Your task to perform on an android device: turn off improve location accuracy Image 0: 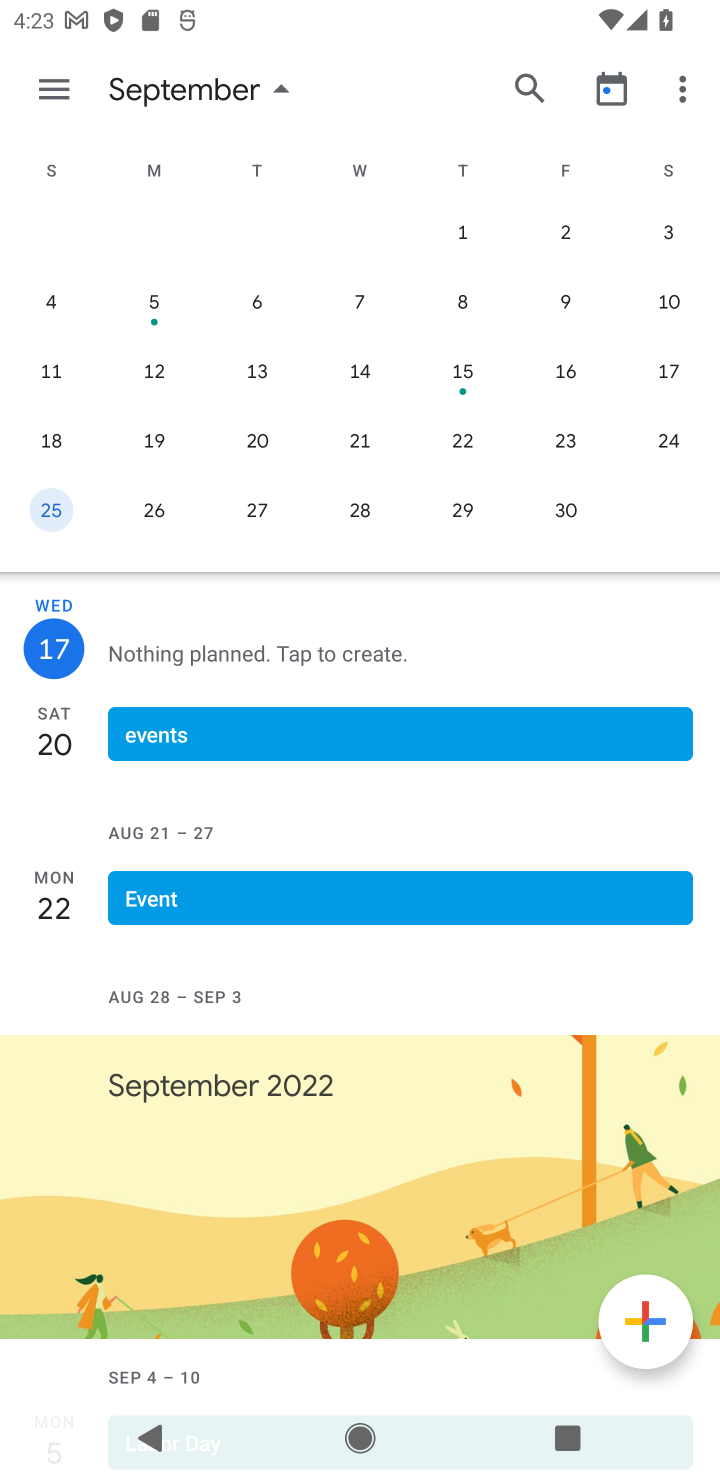
Step 0: press home button
Your task to perform on an android device: turn off improve location accuracy Image 1: 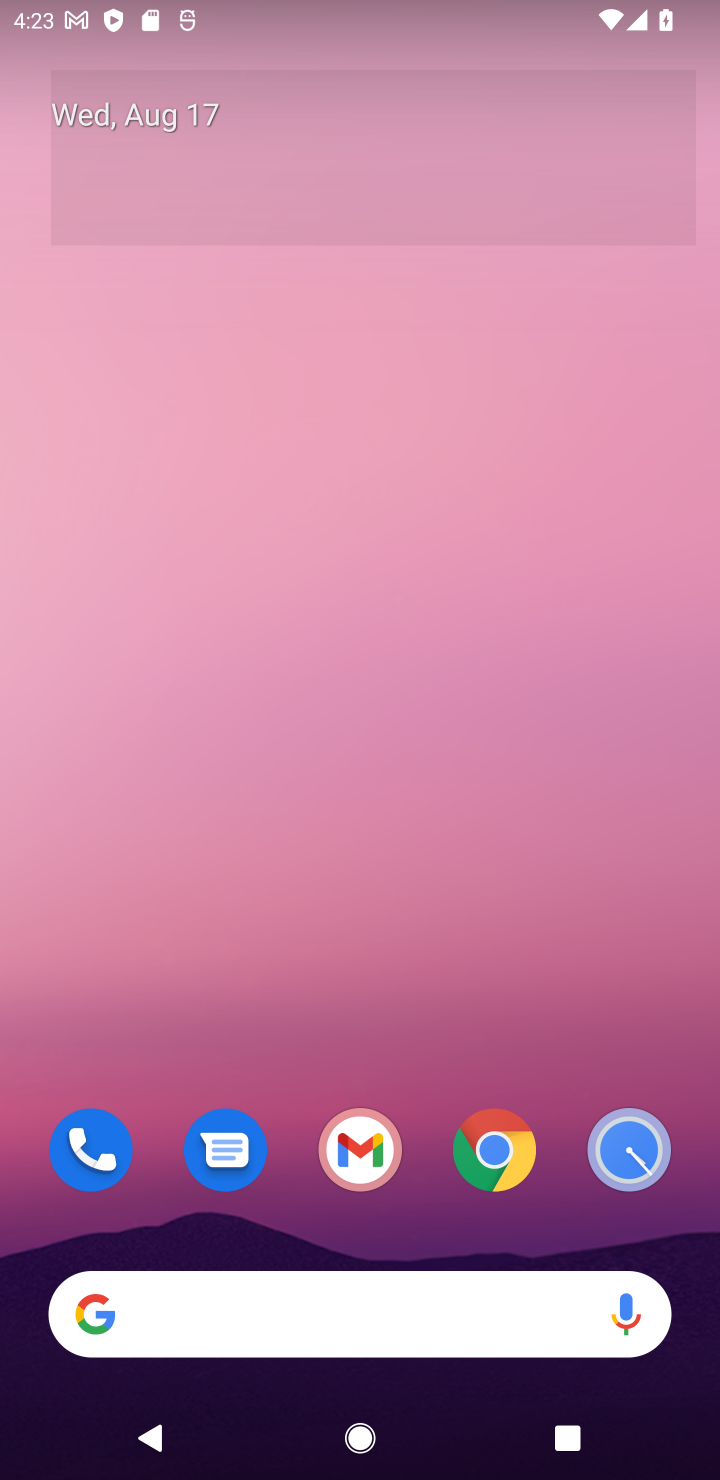
Step 1: drag from (554, 1192) to (401, 1)
Your task to perform on an android device: turn off improve location accuracy Image 2: 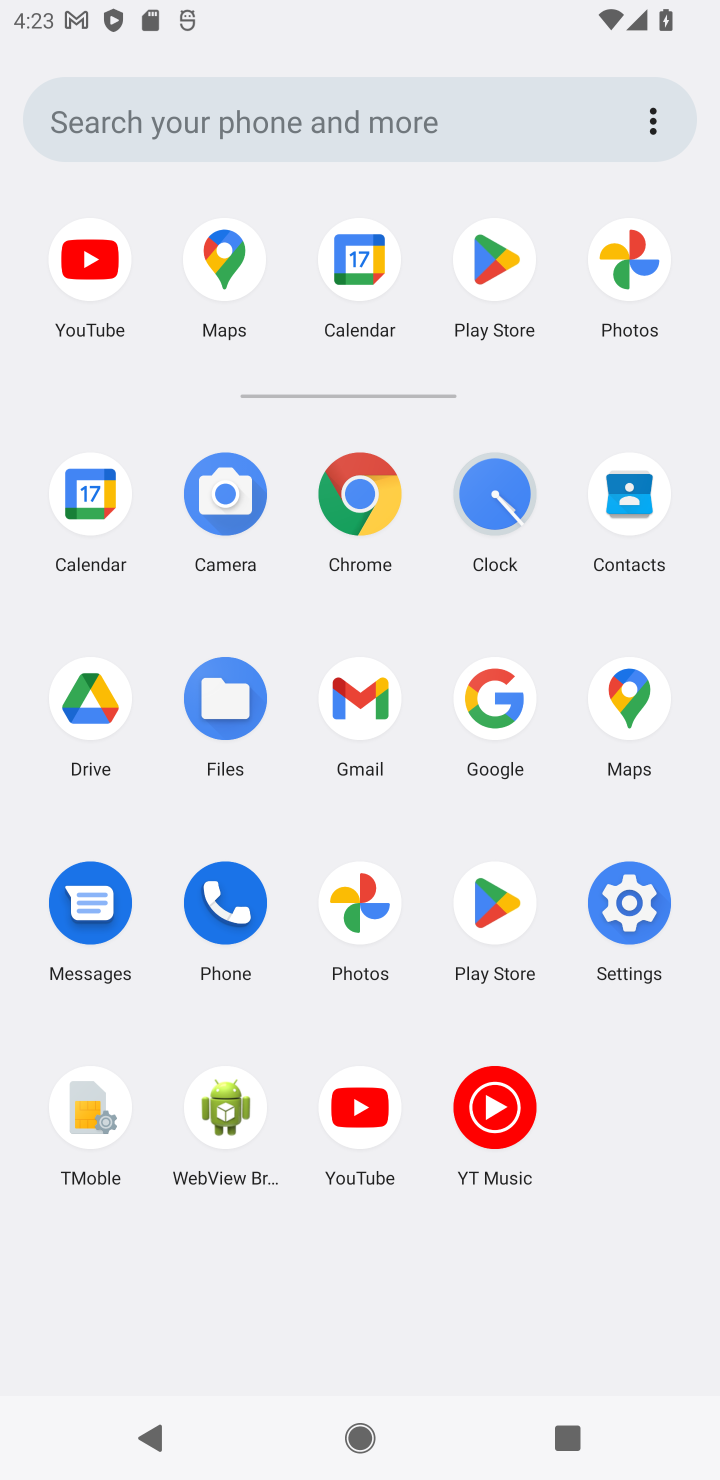
Step 2: click (620, 892)
Your task to perform on an android device: turn off improve location accuracy Image 3: 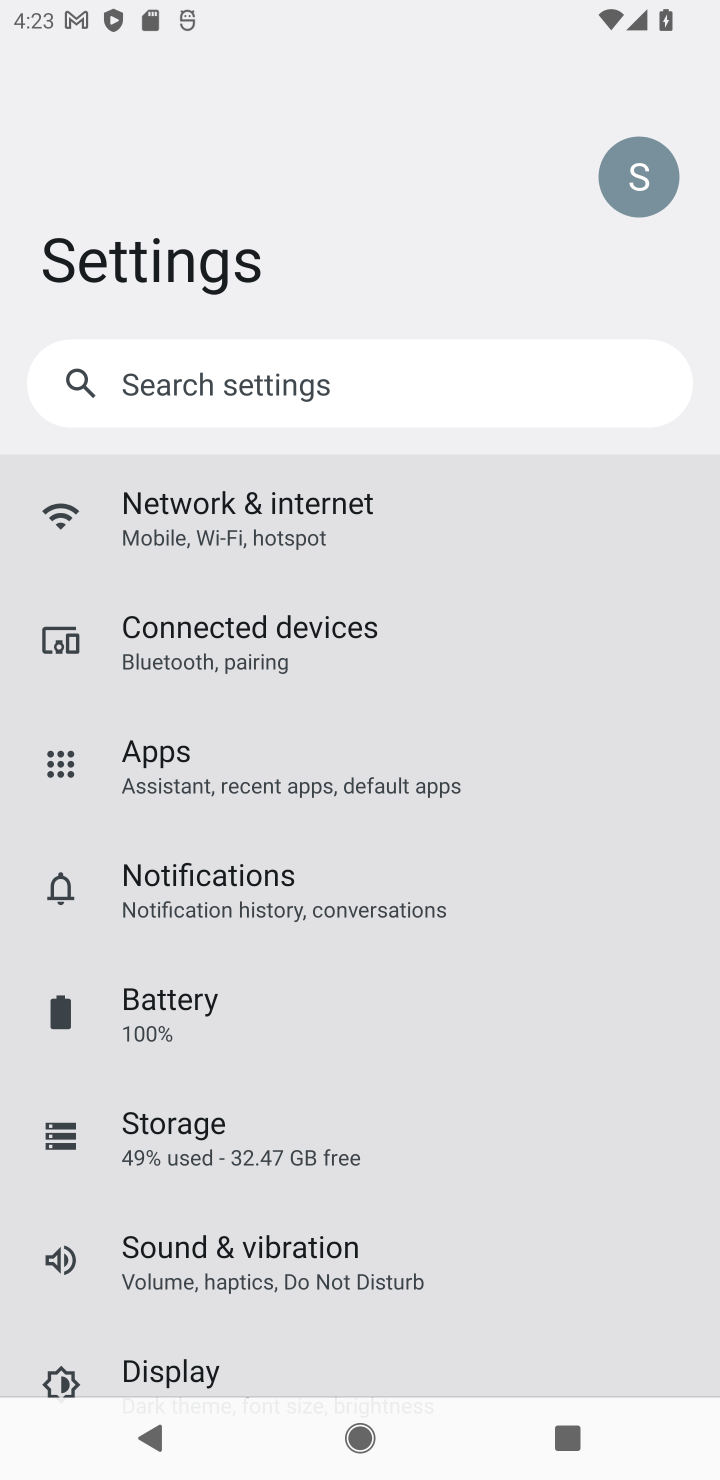
Step 3: drag from (328, 1277) to (157, 182)
Your task to perform on an android device: turn off improve location accuracy Image 4: 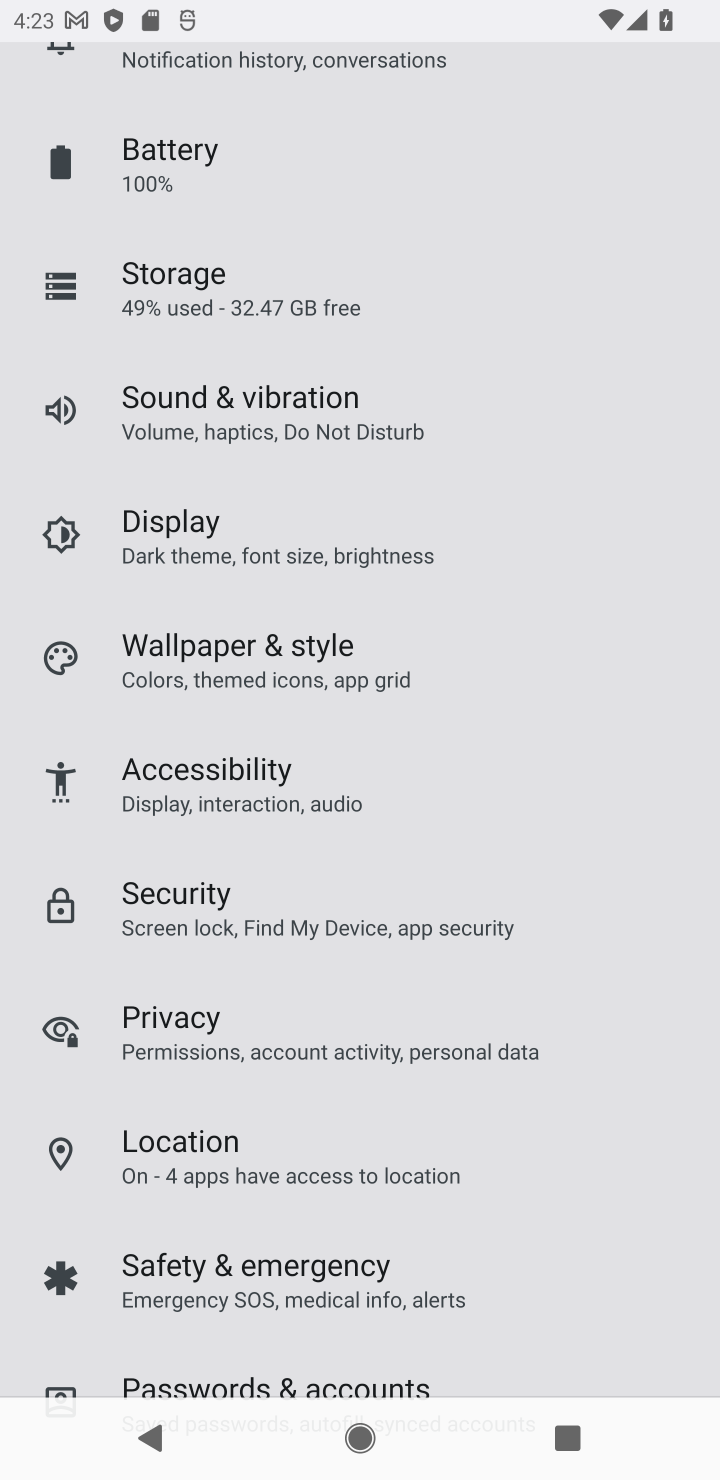
Step 4: click (131, 1147)
Your task to perform on an android device: turn off improve location accuracy Image 5: 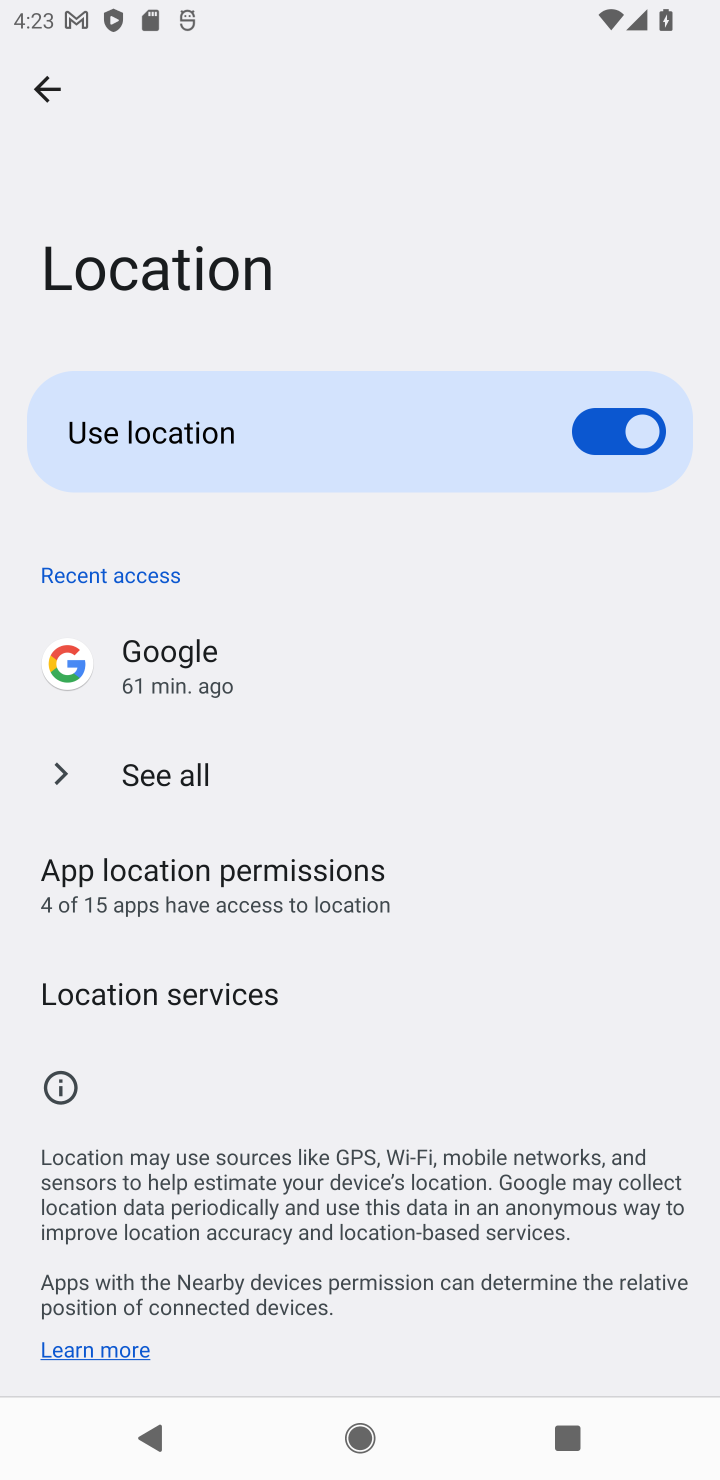
Step 5: click (160, 1017)
Your task to perform on an android device: turn off improve location accuracy Image 6: 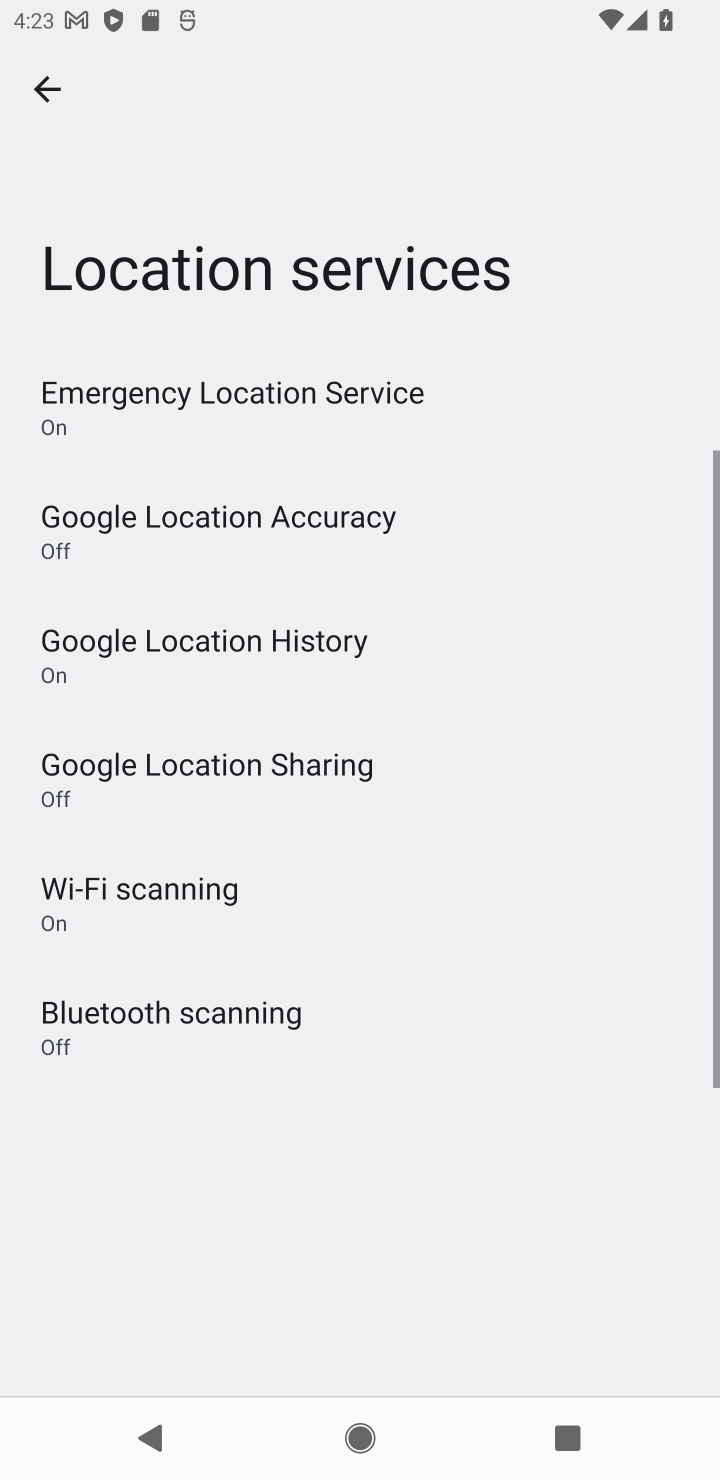
Step 6: click (274, 531)
Your task to perform on an android device: turn off improve location accuracy Image 7: 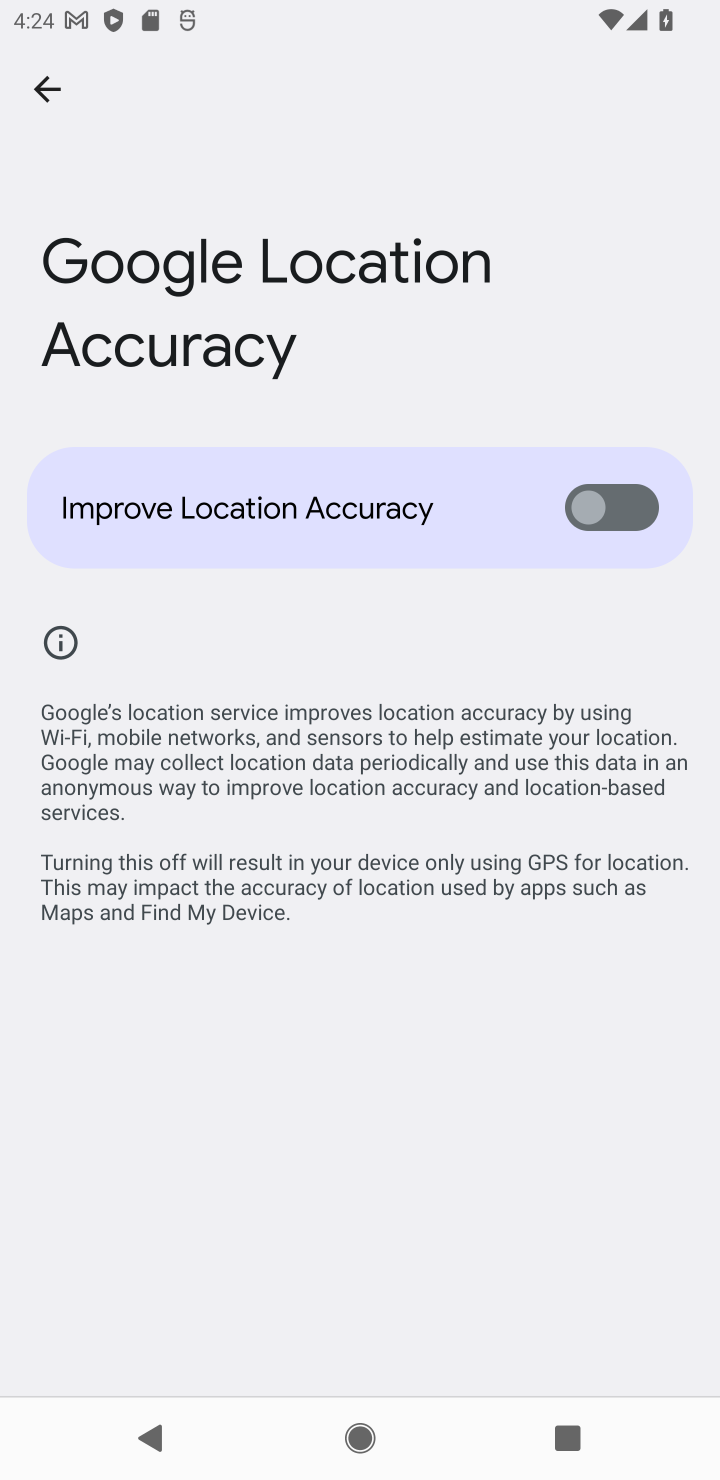
Step 7: task complete